Your task to perform on an android device: change alarm snooze length Image 0: 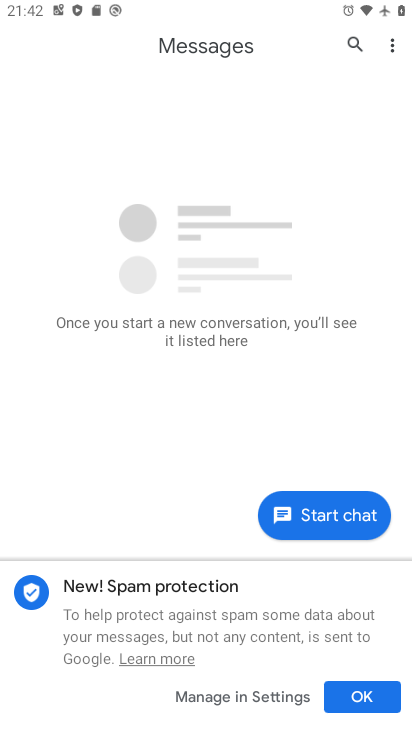
Step 0: press home button
Your task to perform on an android device: change alarm snooze length Image 1: 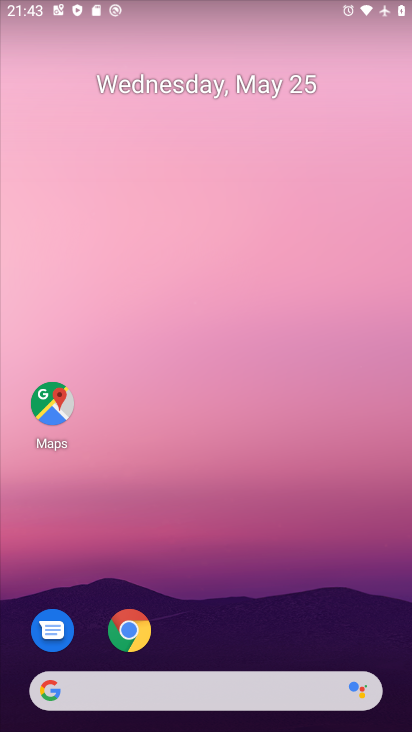
Step 1: drag from (200, 617) to (202, 289)
Your task to perform on an android device: change alarm snooze length Image 2: 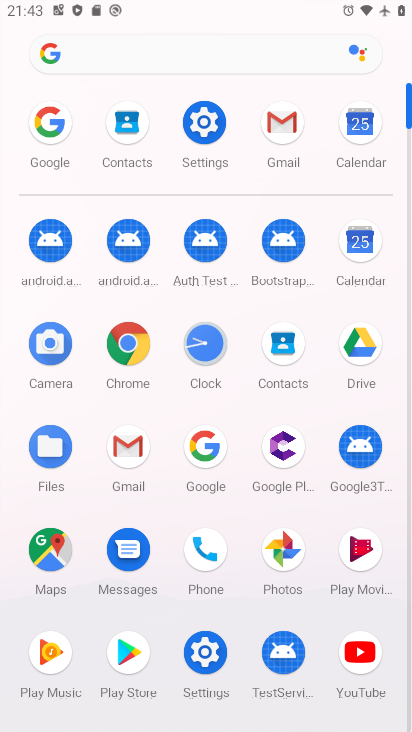
Step 2: click (199, 339)
Your task to perform on an android device: change alarm snooze length Image 3: 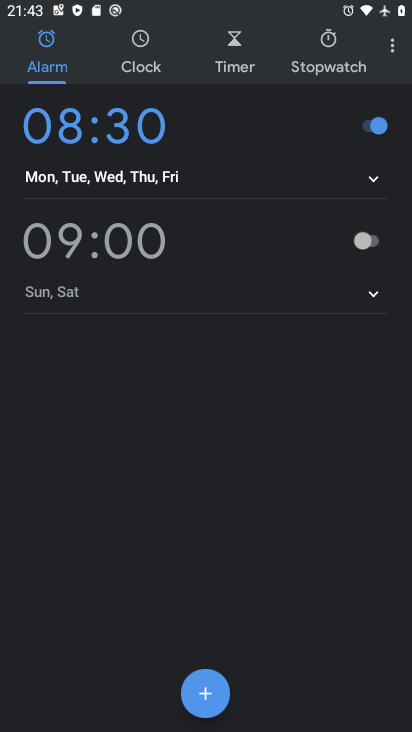
Step 3: click (392, 51)
Your task to perform on an android device: change alarm snooze length Image 4: 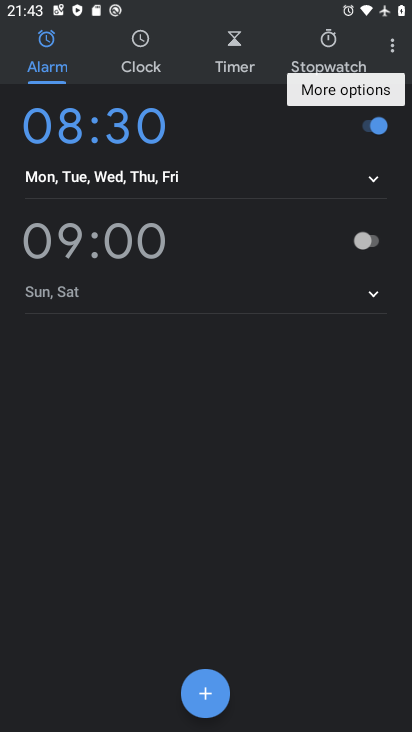
Step 4: click (392, 51)
Your task to perform on an android device: change alarm snooze length Image 5: 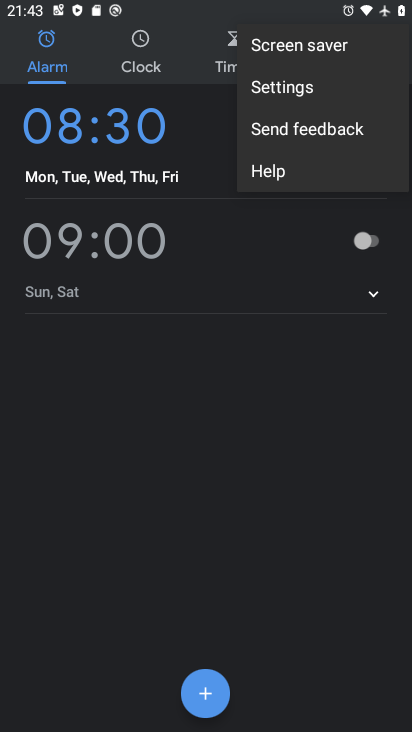
Step 5: click (266, 90)
Your task to perform on an android device: change alarm snooze length Image 6: 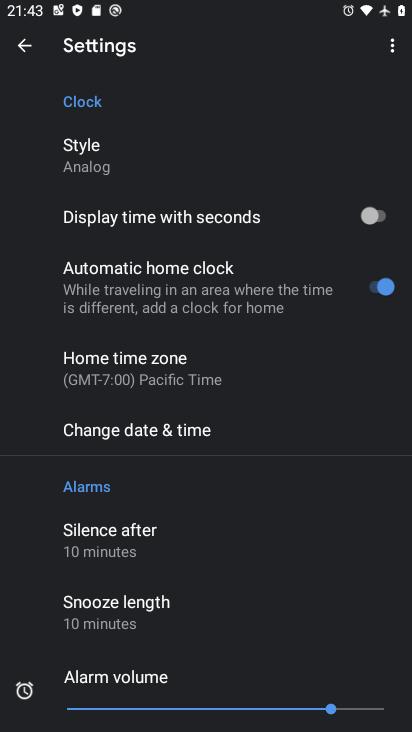
Step 6: click (183, 616)
Your task to perform on an android device: change alarm snooze length Image 7: 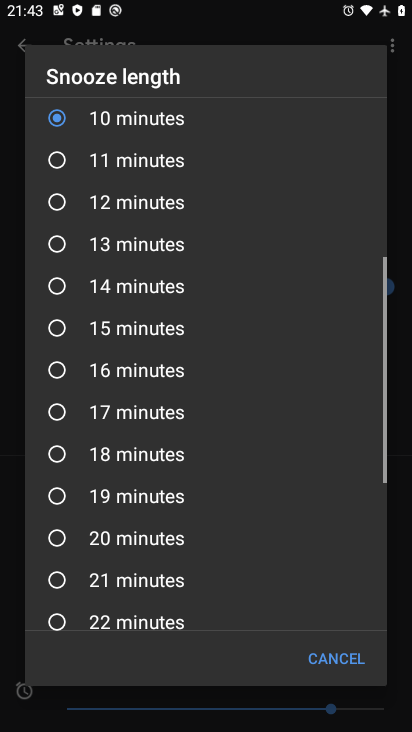
Step 7: click (133, 466)
Your task to perform on an android device: change alarm snooze length Image 8: 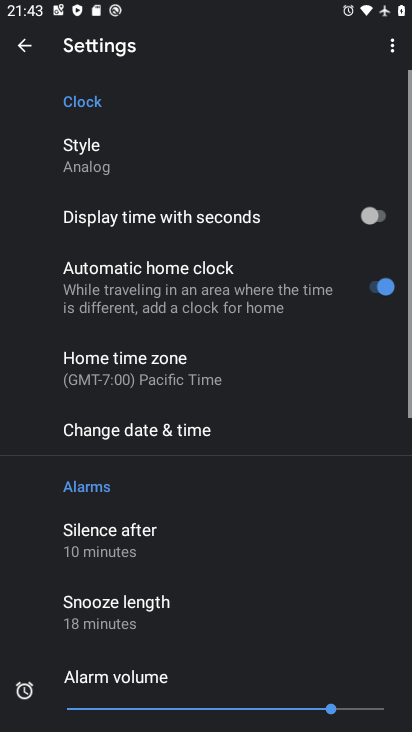
Step 8: task complete